Your task to perform on an android device: turn off improve location accuracy Image 0: 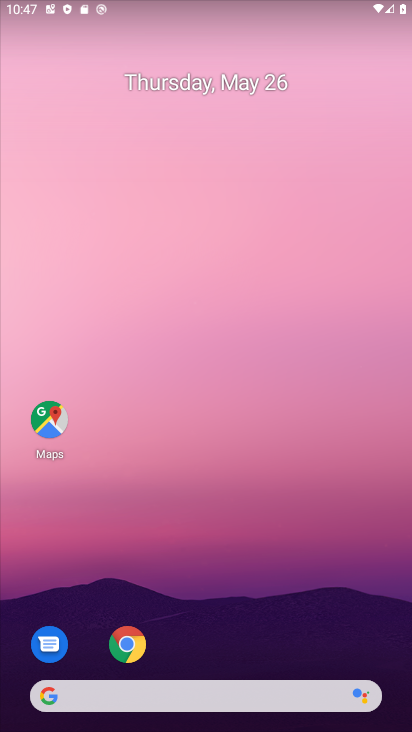
Step 0: drag from (347, 625) to (266, 100)
Your task to perform on an android device: turn off improve location accuracy Image 1: 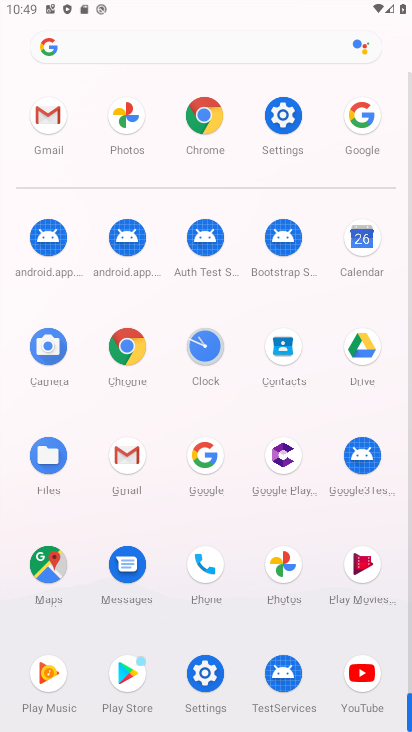
Step 1: click (298, 118)
Your task to perform on an android device: turn off improve location accuracy Image 2: 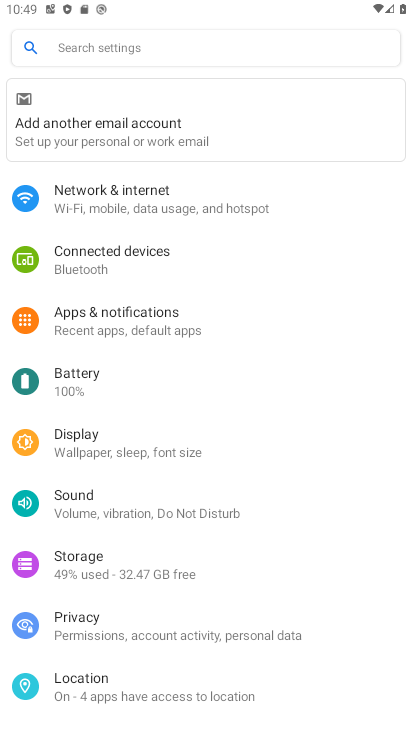
Step 2: click (117, 683)
Your task to perform on an android device: turn off improve location accuracy Image 3: 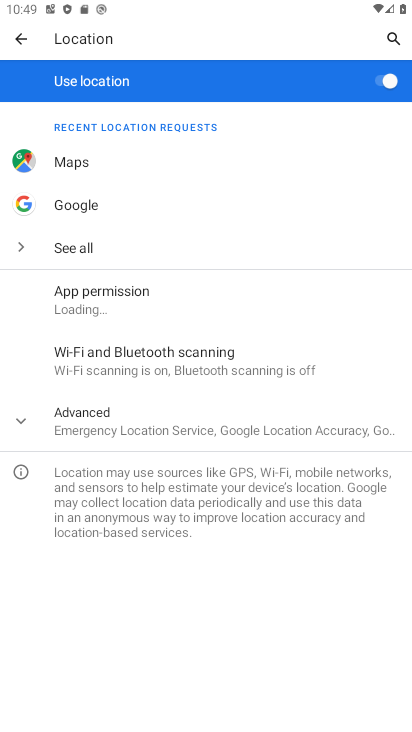
Step 3: click (147, 422)
Your task to perform on an android device: turn off improve location accuracy Image 4: 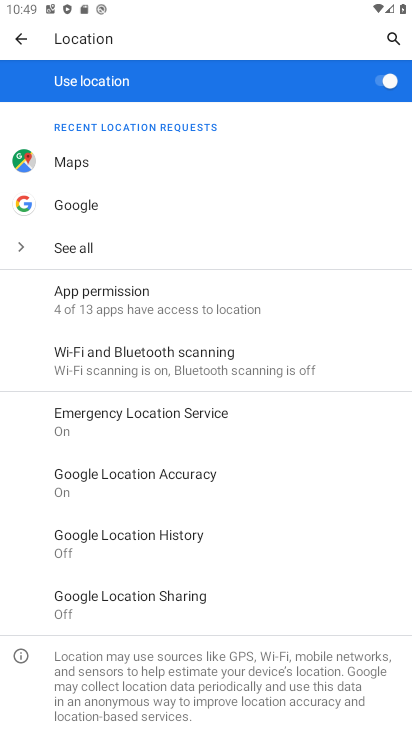
Step 4: click (158, 477)
Your task to perform on an android device: turn off improve location accuracy Image 5: 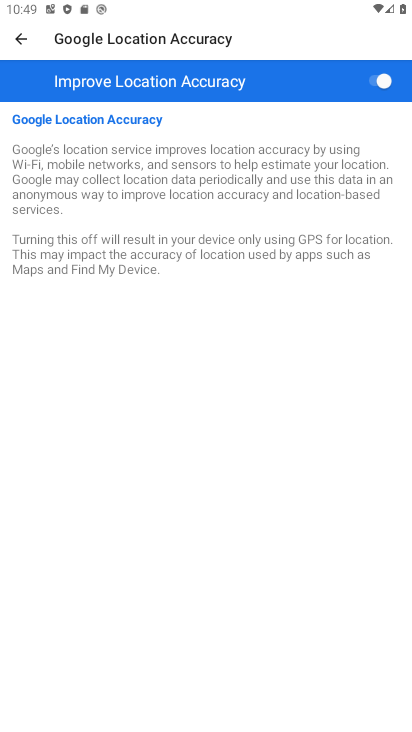
Step 5: click (348, 83)
Your task to perform on an android device: turn off improve location accuracy Image 6: 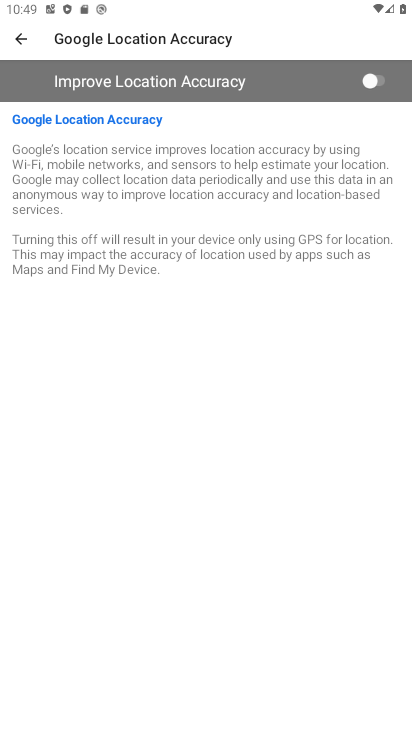
Step 6: task complete